Your task to perform on an android device: uninstall "Walmart Shopping & Grocery" Image 0: 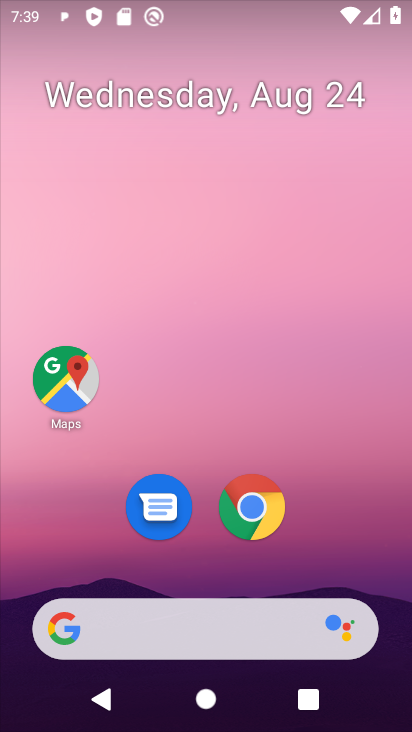
Step 0: drag from (370, 574) to (392, 58)
Your task to perform on an android device: uninstall "Walmart Shopping & Grocery" Image 1: 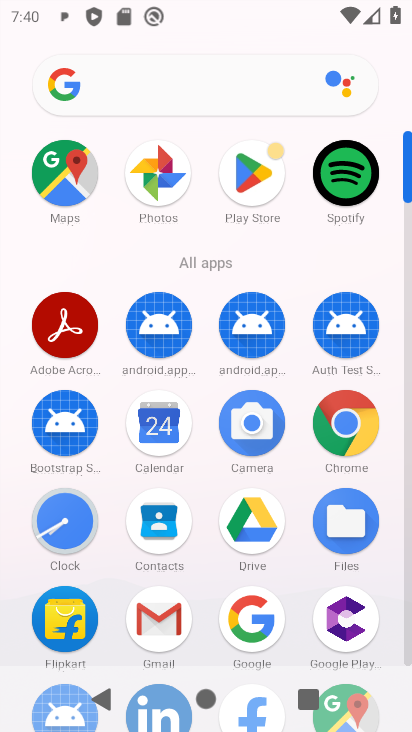
Step 1: click (257, 179)
Your task to perform on an android device: uninstall "Walmart Shopping & Grocery" Image 2: 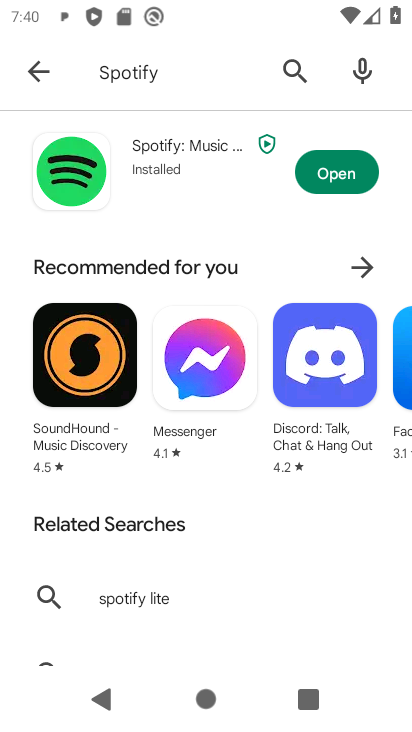
Step 2: press back button
Your task to perform on an android device: uninstall "Walmart Shopping & Grocery" Image 3: 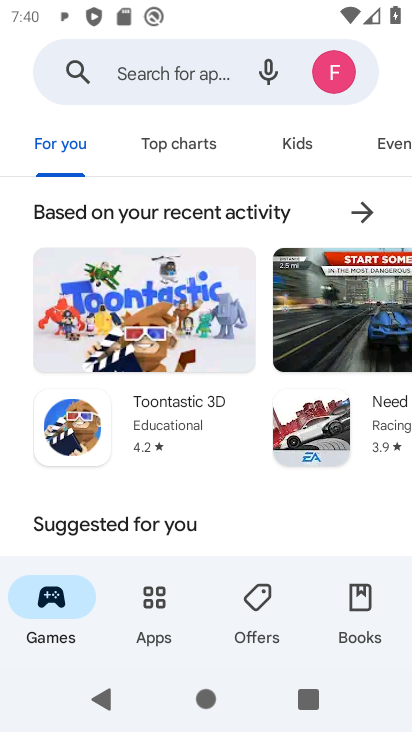
Step 3: click (171, 71)
Your task to perform on an android device: uninstall "Walmart Shopping & Grocery" Image 4: 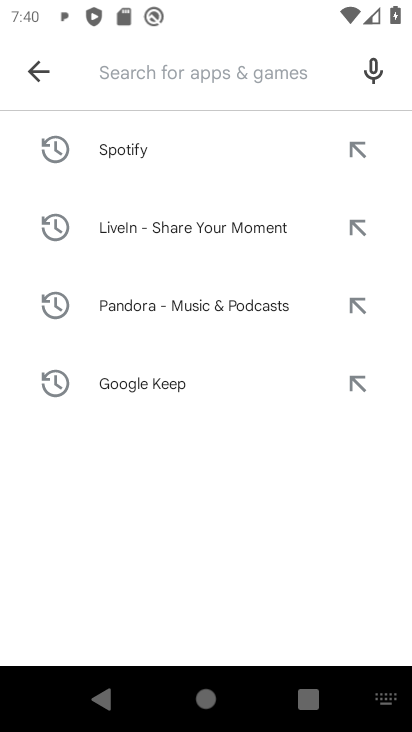
Step 4: type "Walmart Shopping & Grocery"
Your task to perform on an android device: uninstall "Walmart Shopping & Grocery" Image 5: 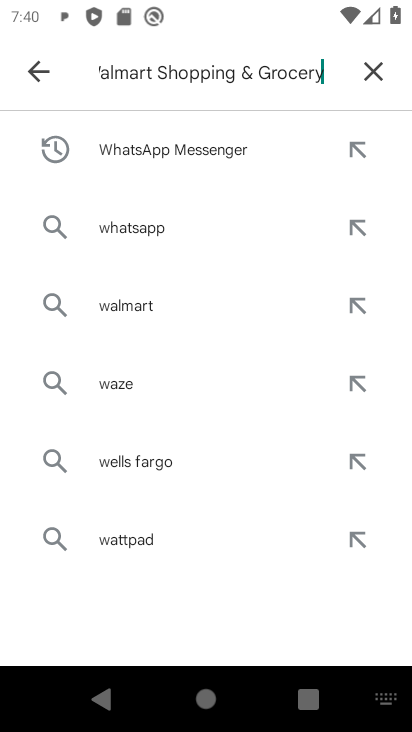
Step 5: press enter
Your task to perform on an android device: uninstall "Walmart Shopping & Grocery" Image 6: 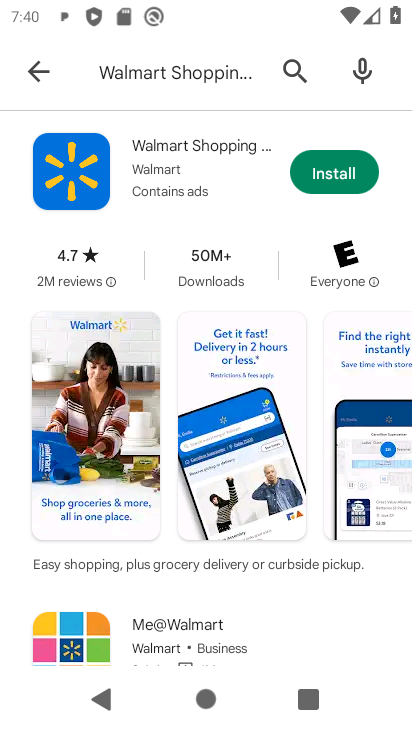
Step 6: task complete